Your task to perform on an android device: change the upload size in google photos Image 0: 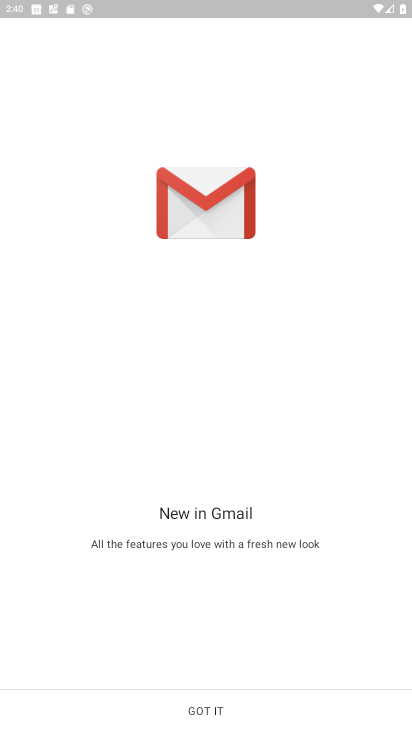
Step 0: press home button
Your task to perform on an android device: change the upload size in google photos Image 1: 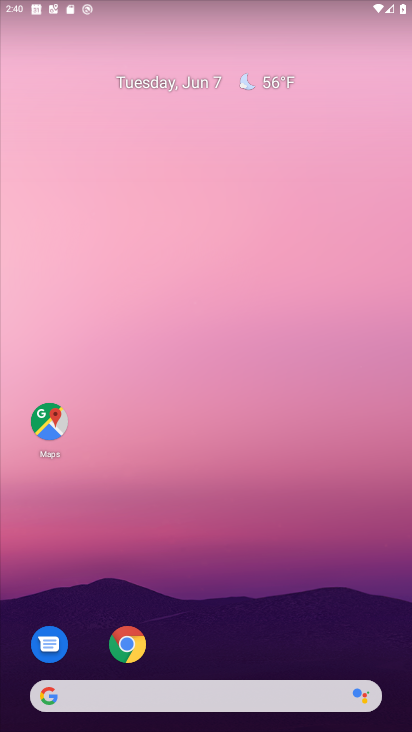
Step 1: drag from (231, 649) to (230, 594)
Your task to perform on an android device: change the upload size in google photos Image 2: 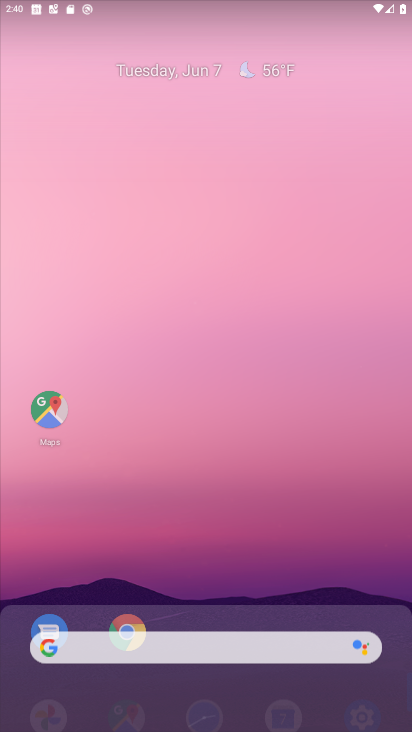
Step 2: click (235, 73)
Your task to perform on an android device: change the upload size in google photos Image 3: 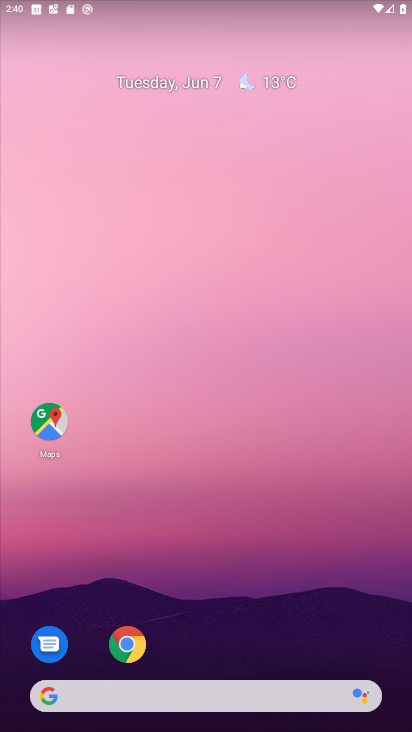
Step 3: drag from (223, 663) to (213, 220)
Your task to perform on an android device: change the upload size in google photos Image 4: 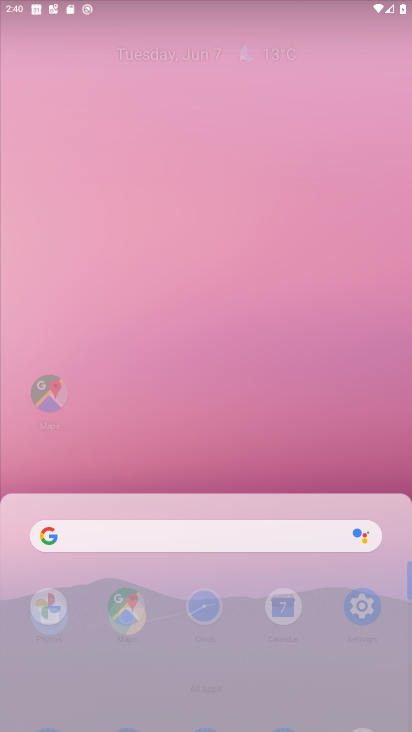
Step 4: click (213, 29)
Your task to perform on an android device: change the upload size in google photos Image 5: 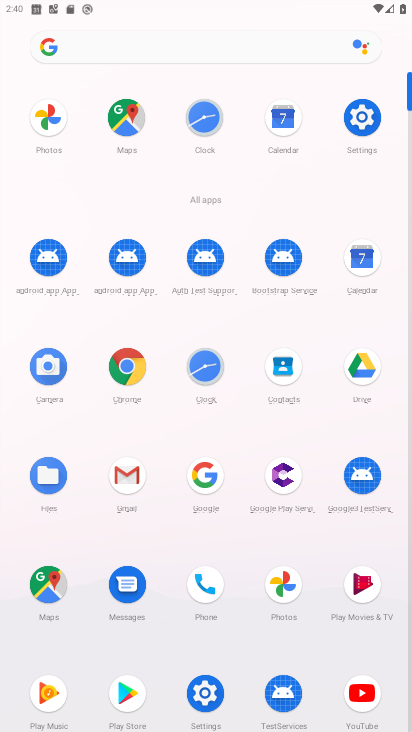
Step 5: click (279, 573)
Your task to perform on an android device: change the upload size in google photos Image 6: 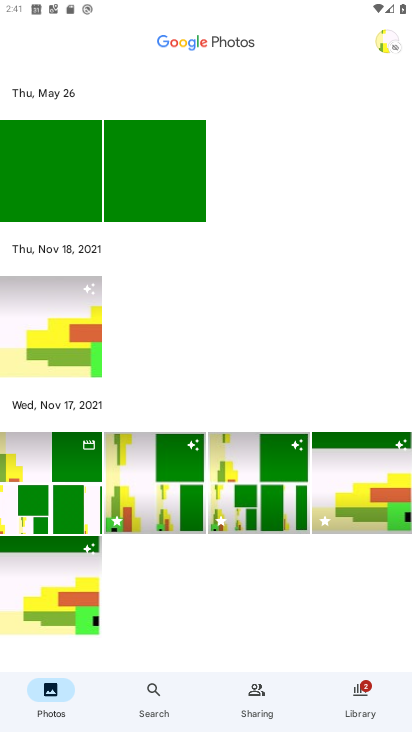
Step 6: click (381, 43)
Your task to perform on an android device: change the upload size in google photos Image 7: 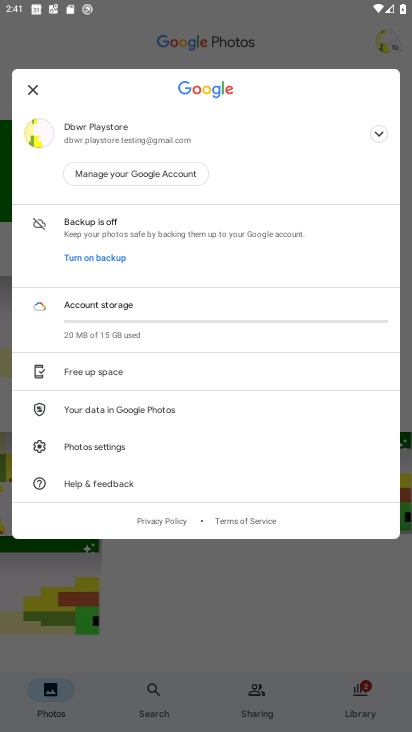
Step 7: click (133, 222)
Your task to perform on an android device: change the upload size in google photos Image 8: 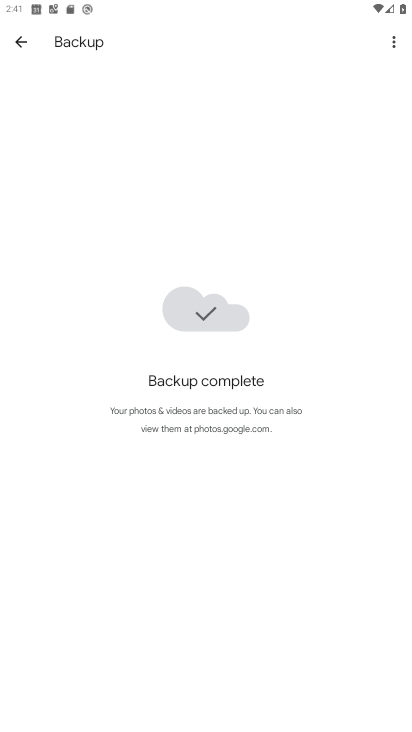
Step 8: click (391, 38)
Your task to perform on an android device: change the upload size in google photos Image 9: 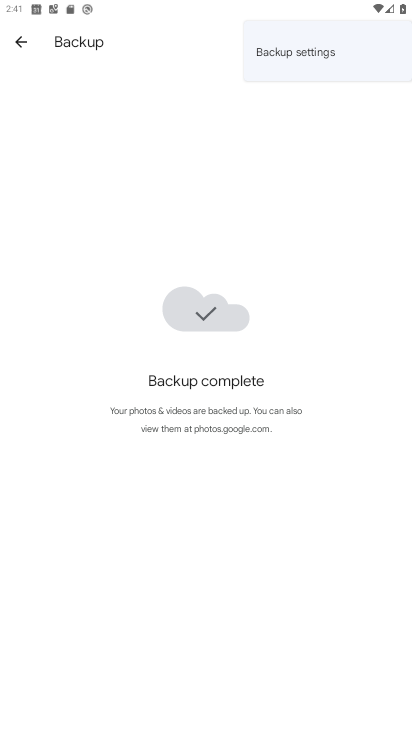
Step 9: click (281, 58)
Your task to perform on an android device: change the upload size in google photos Image 10: 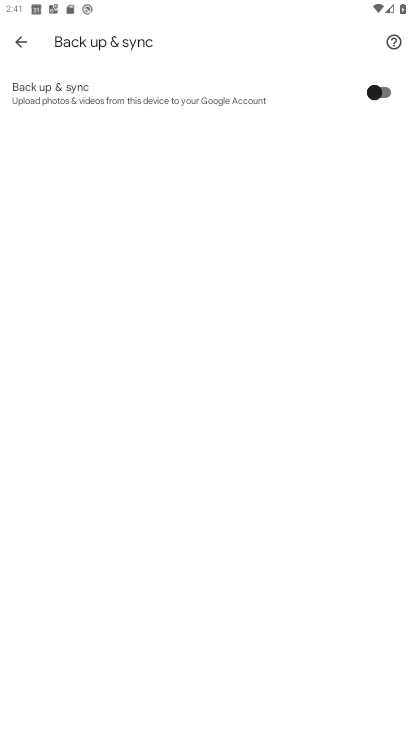
Step 10: click (384, 86)
Your task to perform on an android device: change the upload size in google photos Image 11: 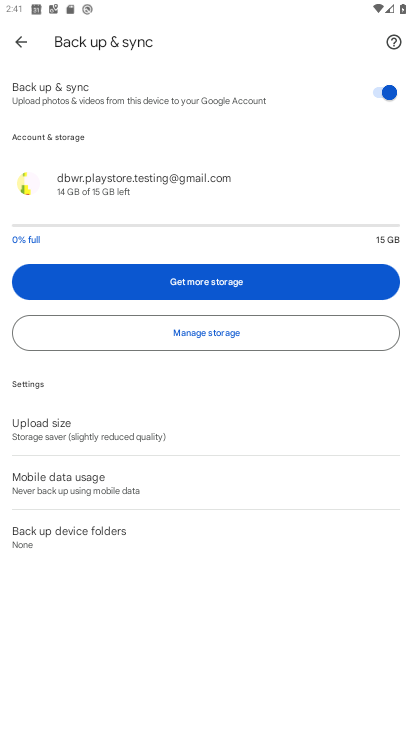
Step 11: click (91, 424)
Your task to perform on an android device: change the upload size in google photos Image 12: 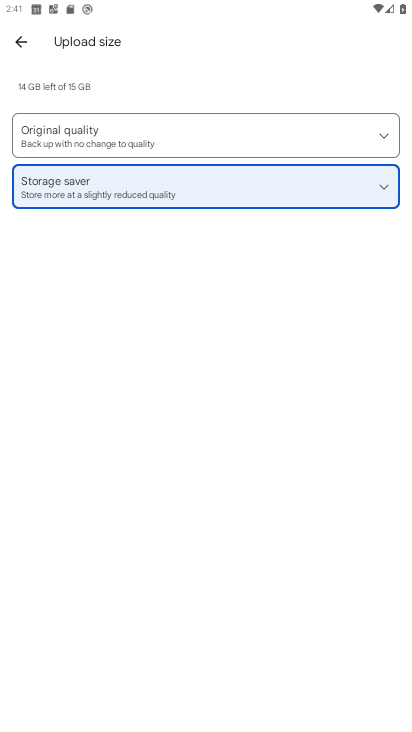
Step 12: click (134, 133)
Your task to perform on an android device: change the upload size in google photos Image 13: 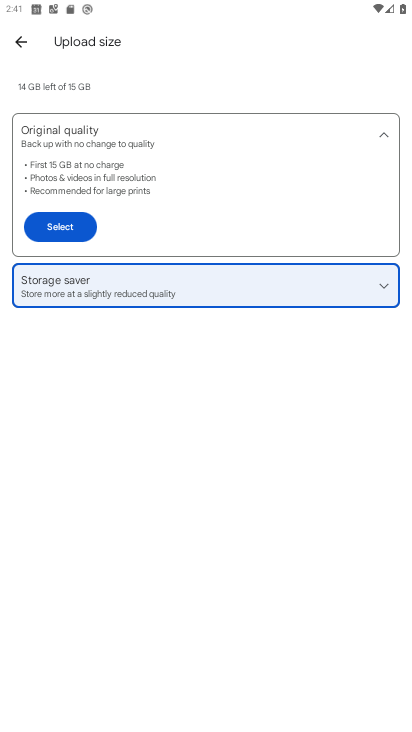
Step 13: click (51, 230)
Your task to perform on an android device: change the upload size in google photos Image 14: 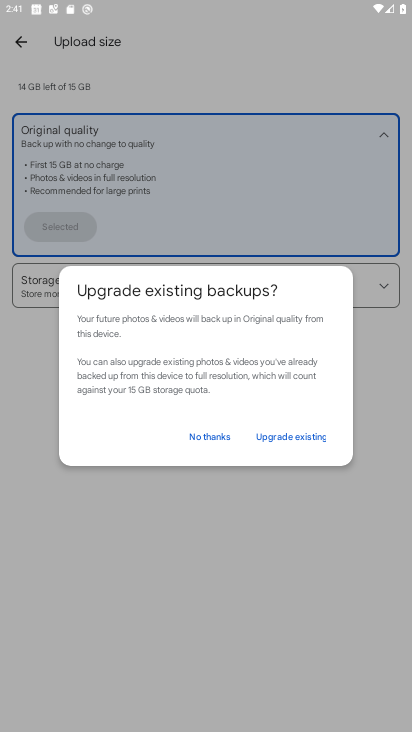
Step 14: click (304, 443)
Your task to perform on an android device: change the upload size in google photos Image 15: 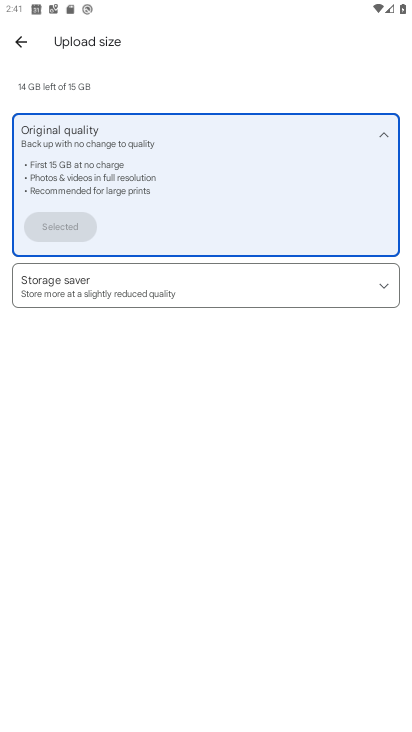
Step 15: task complete